Your task to perform on an android device: Open maps Image 0: 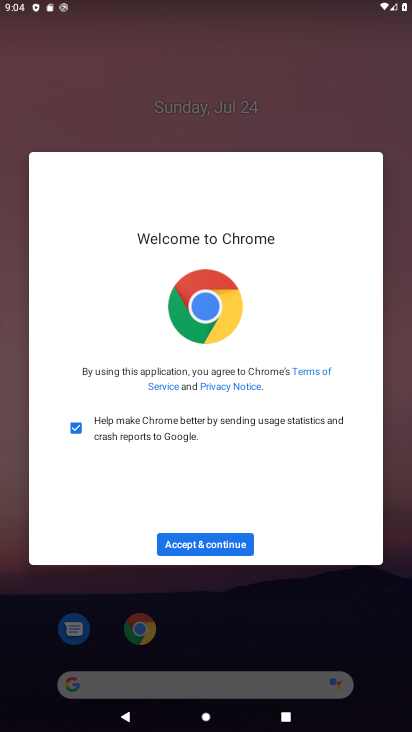
Step 0: click (198, 552)
Your task to perform on an android device: Open maps Image 1: 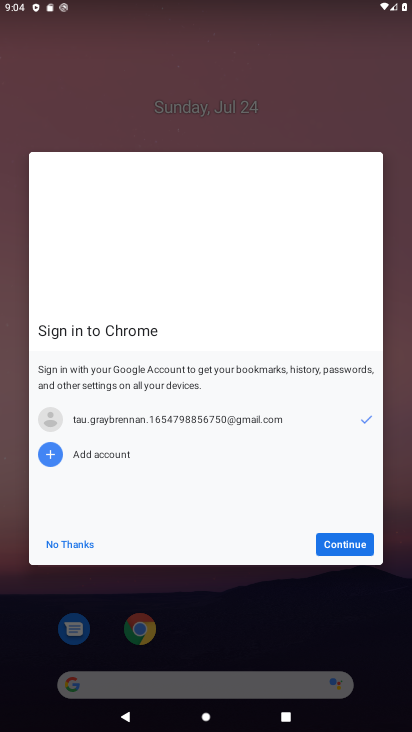
Step 1: click (343, 552)
Your task to perform on an android device: Open maps Image 2: 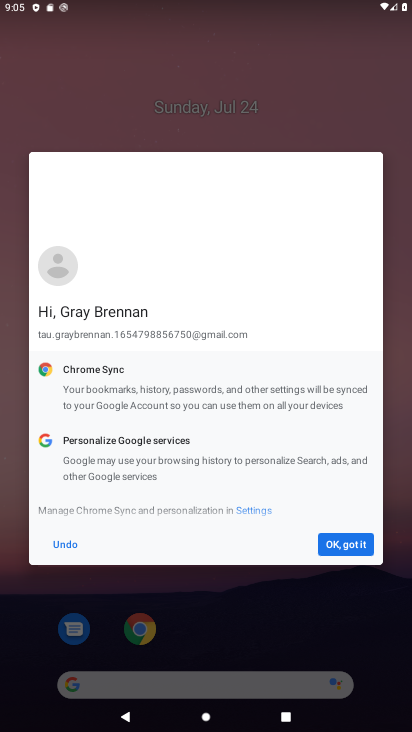
Step 2: press home button
Your task to perform on an android device: Open maps Image 3: 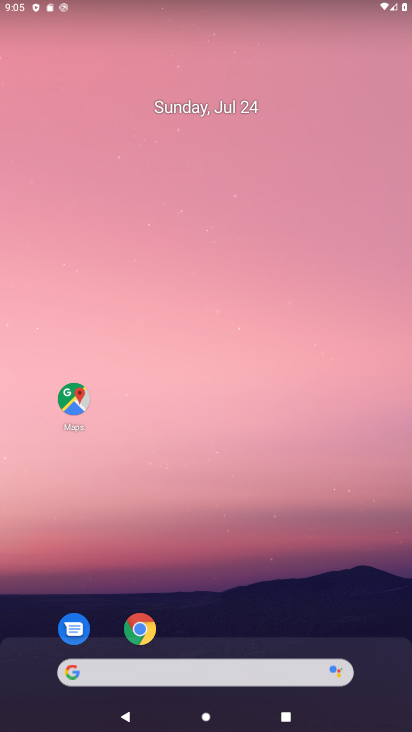
Step 3: click (59, 393)
Your task to perform on an android device: Open maps Image 4: 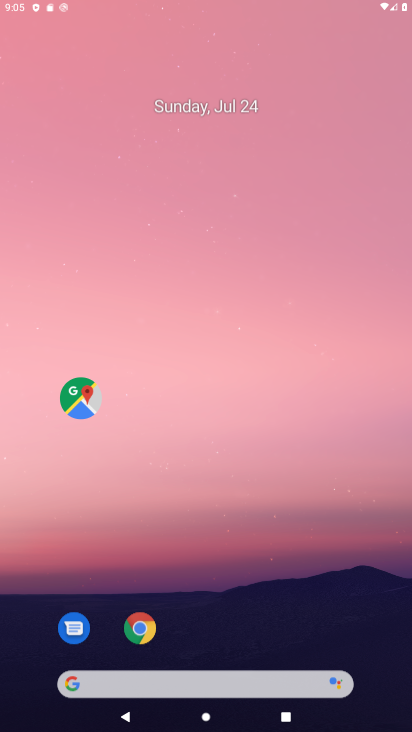
Step 4: task complete